Your task to perform on an android device: Open calendar and show me the first week of next month Image 0: 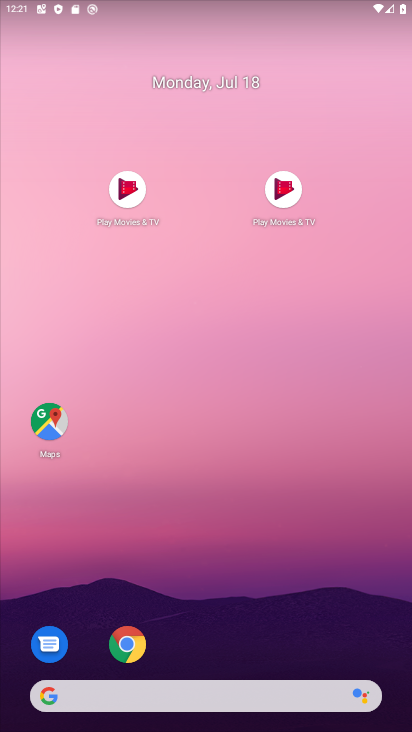
Step 0: drag from (263, 643) to (254, 190)
Your task to perform on an android device: Open calendar and show me the first week of next month Image 1: 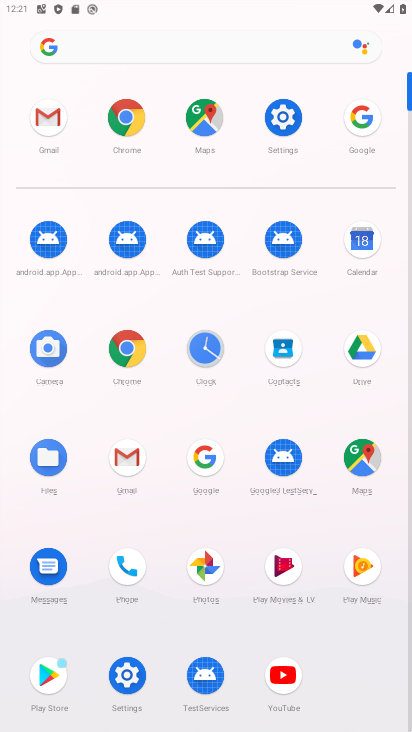
Step 1: click (368, 245)
Your task to perform on an android device: Open calendar and show me the first week of next month Image 2: 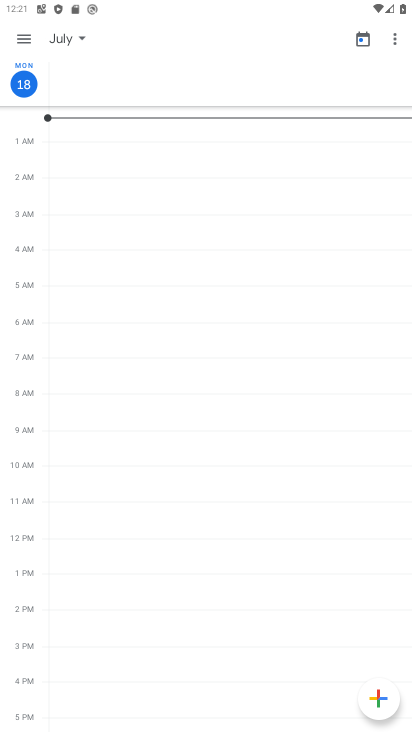
Step 2: click (62, 38)
Your task to perform on an android device: Open calendar and show me the first week of next month Image 3: 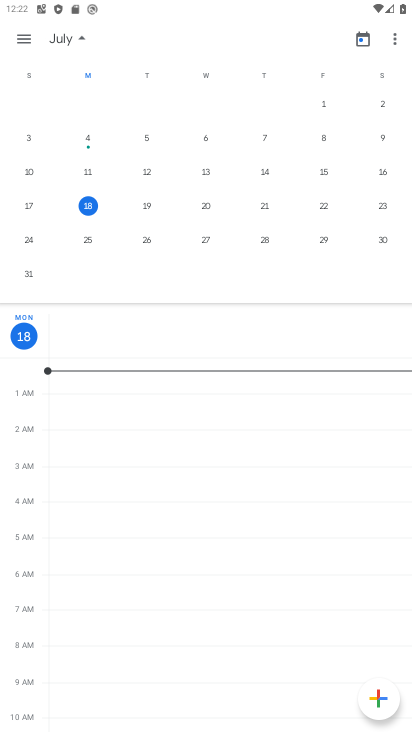
Step 3: drag from (363, 188) to (47, 191)
Your task to perform on an android device: Open calendar and show me the first week of next month Image 4: 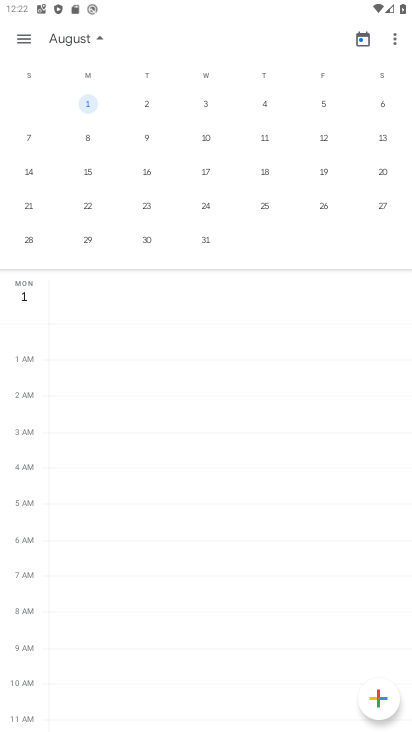
Step 4: click (203, 100)
Your task to perform on an android device: Open calendar and show me the first week of next month Image 5: 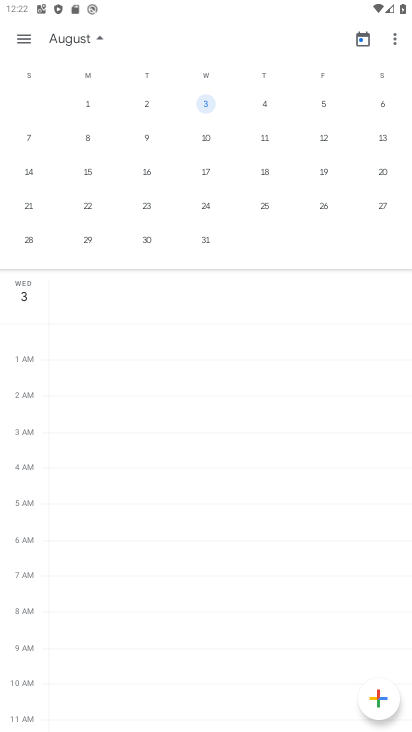
Step 5: click (21, 35)
Your task to perform on an android device: Open calendar and show me the first week of next month Image 6: 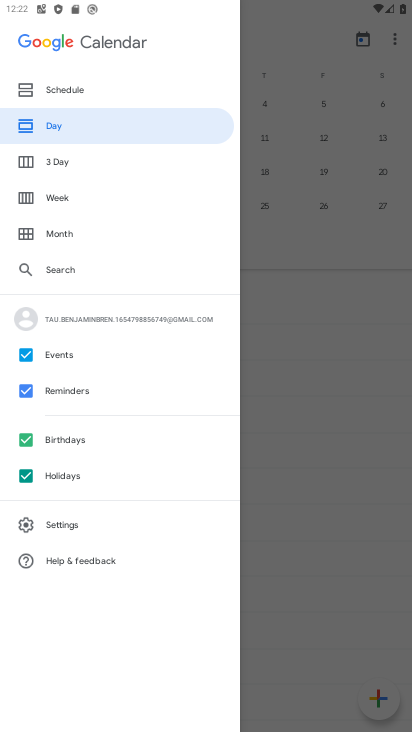
Step 6: click (55, 192)
Your task to perform on an android device: Open calendar and show me the first week of next month Image 7: 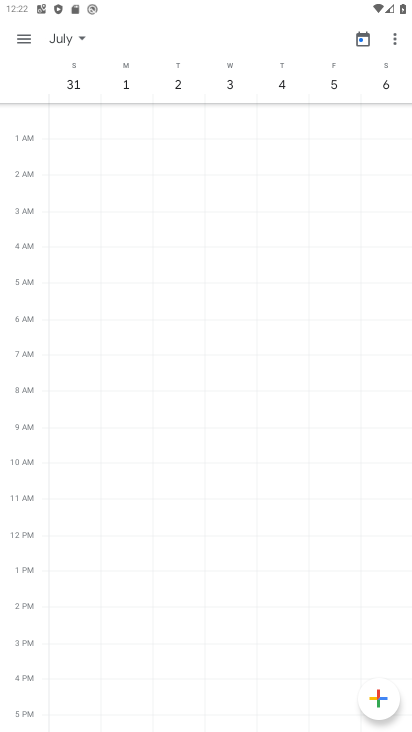
Step 7: task complete